Your task to perform on an android device: turn on airplane mode Image 0: 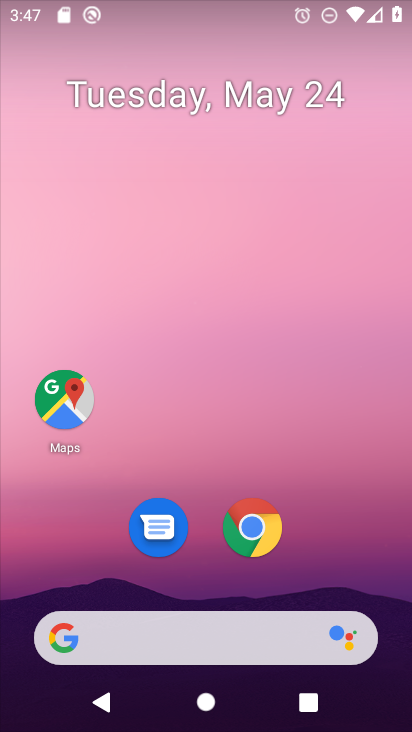
Step 0: drag from (216, 15) to (263, 415)
Your task to perform on an android device: turn on airplane mode Image 1: 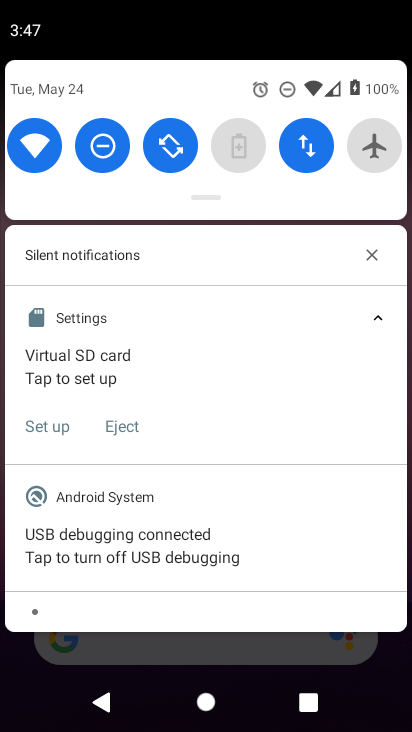
Step 1: click (381, 132)
Your task to perform on an android device: turn on airplane mode Image 2: 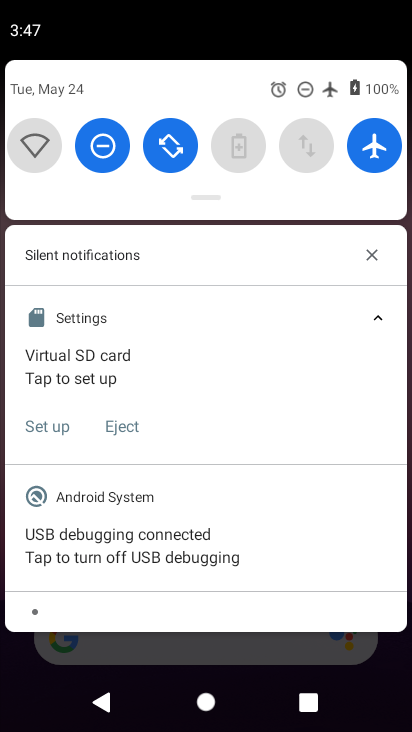
Step 2: task complete